Your task to perform on an android device: allow cookies in the chrome app Image 0: 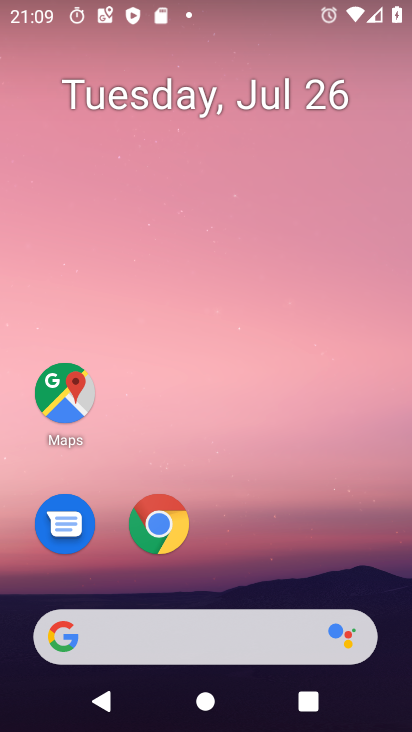
Step 0: click (167, 521)
Your task to perform on an android device: allow cookies in the chrome app Image 1: 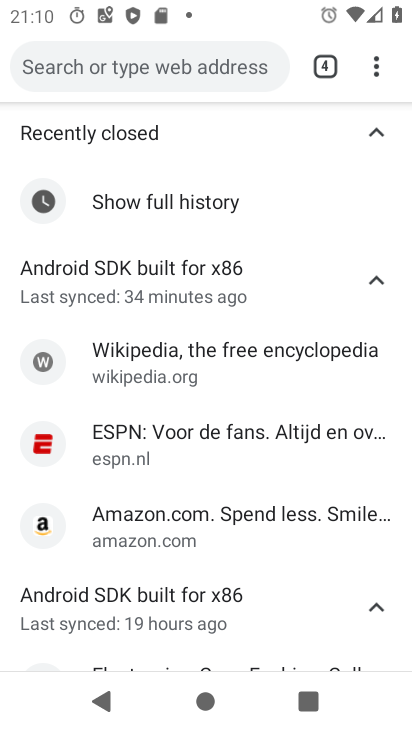
Step 1: press back button
Your task to perform on an android device: allow cookies in the chrome app Image 2: 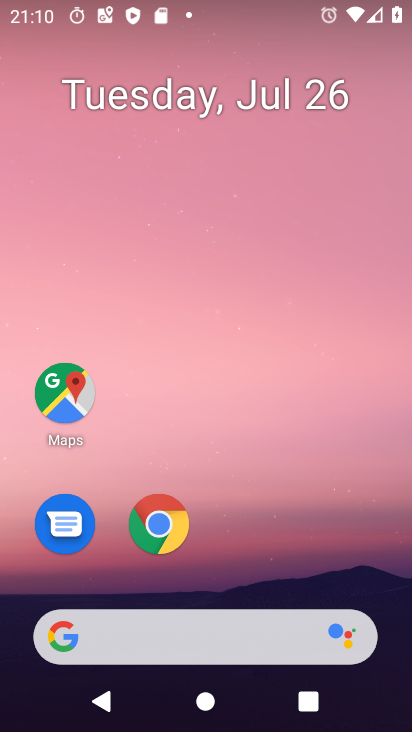
Step 2: click (171, 523)
Your task to perform on an android device: allow cookies in the chrome app Image 3: 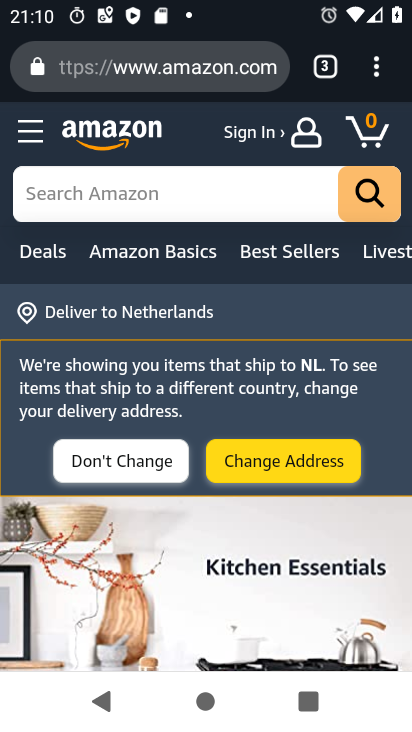
Step 3: click (373, 71)
Your task to perform on an android device: allow cookies in the chrome app Image 4: 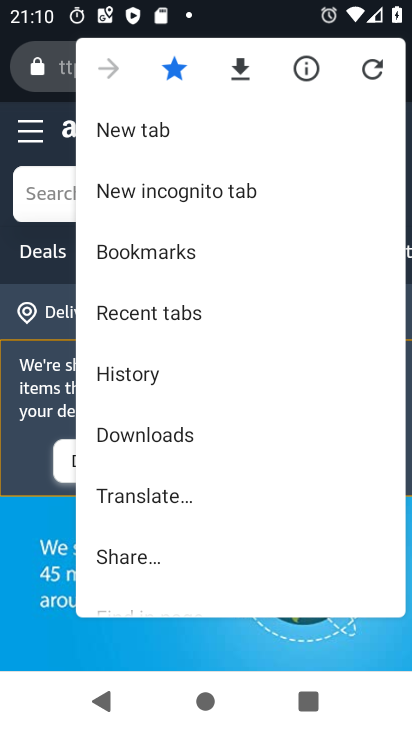
Step 4: drag from (243, 487) to (250, 149)
Your task to perform on an android device: allow cookies in the chrome app Image 5: 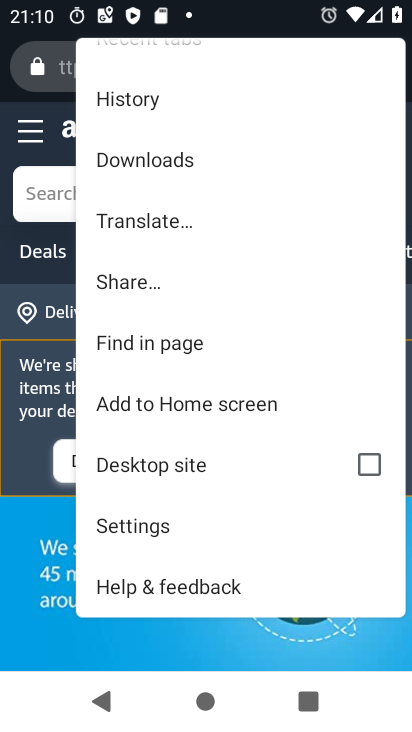
Step 5: click (171, 521)
Your task to perform on an android device: allow cookies in the chrome app Image 6: 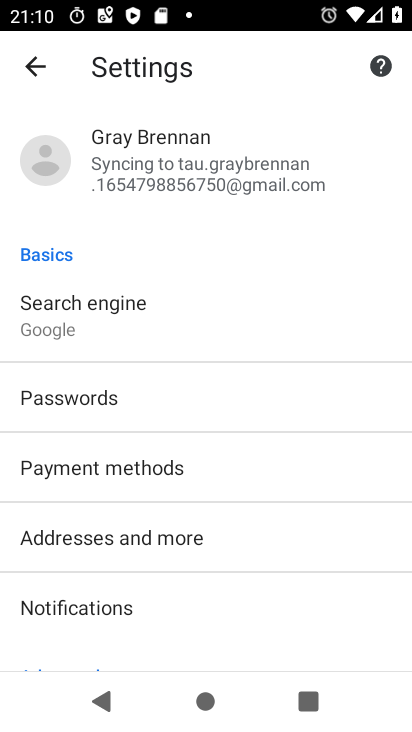
Step 6: drag from (229, 459) to (278, 1)
Your task to perform on an android device: allow cookies in the chrome app Image 7: 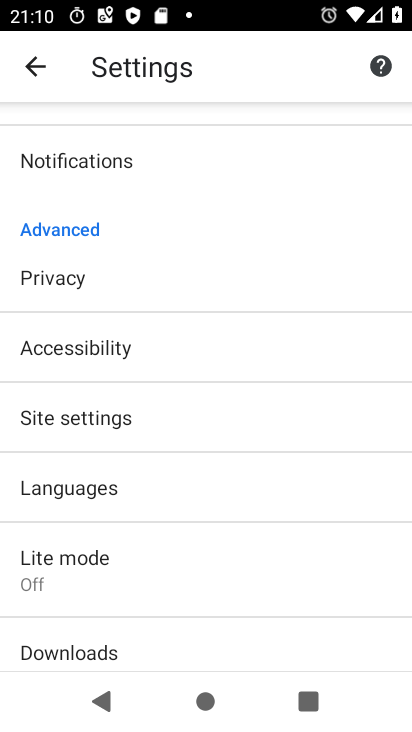
Step 7: click (129, 410)
Your task to perform on an android device: allow cookies in the chrome app Image 8: 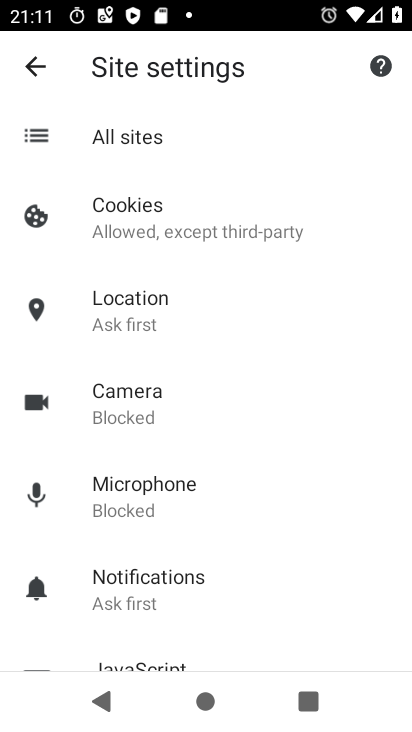
Step 8: task complete